Your task to perform on an android device: Do I have any events this weekend? Image 0: 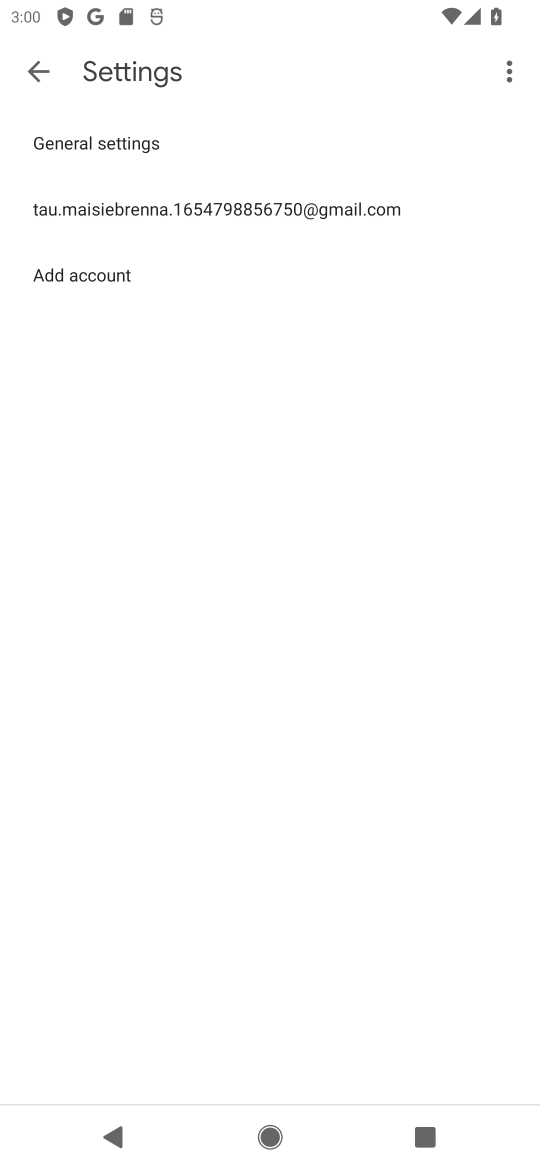
Step 0: press home button
Your task to perform on an android device: Do I have any events this weekend? Image 1: 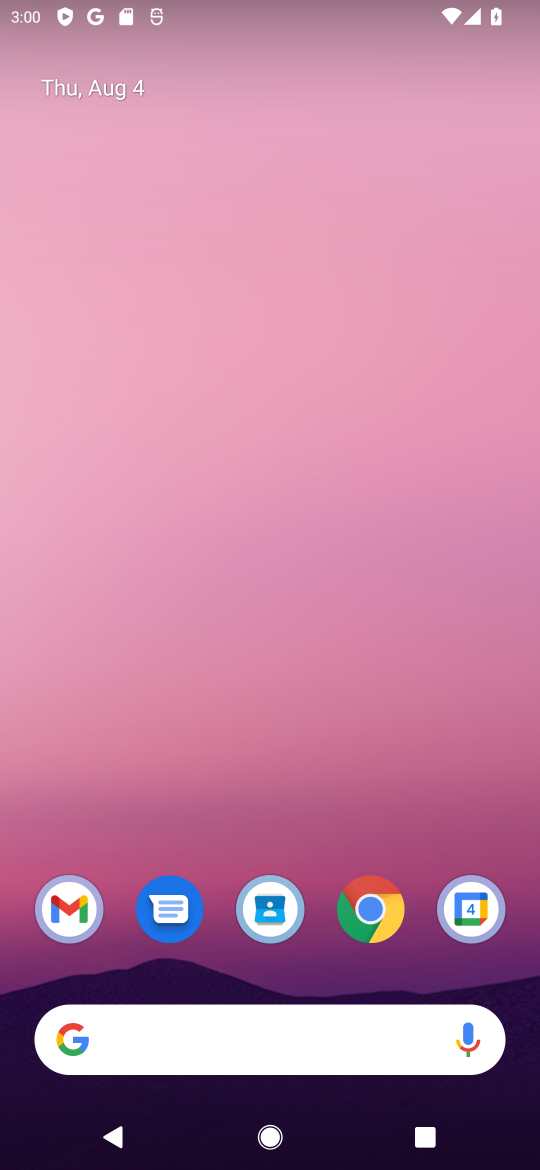
Step 1: drag from (268, 1039) to (469, 185)
Your task to perform on an android device: Do I have any events this weekend? Image 2: 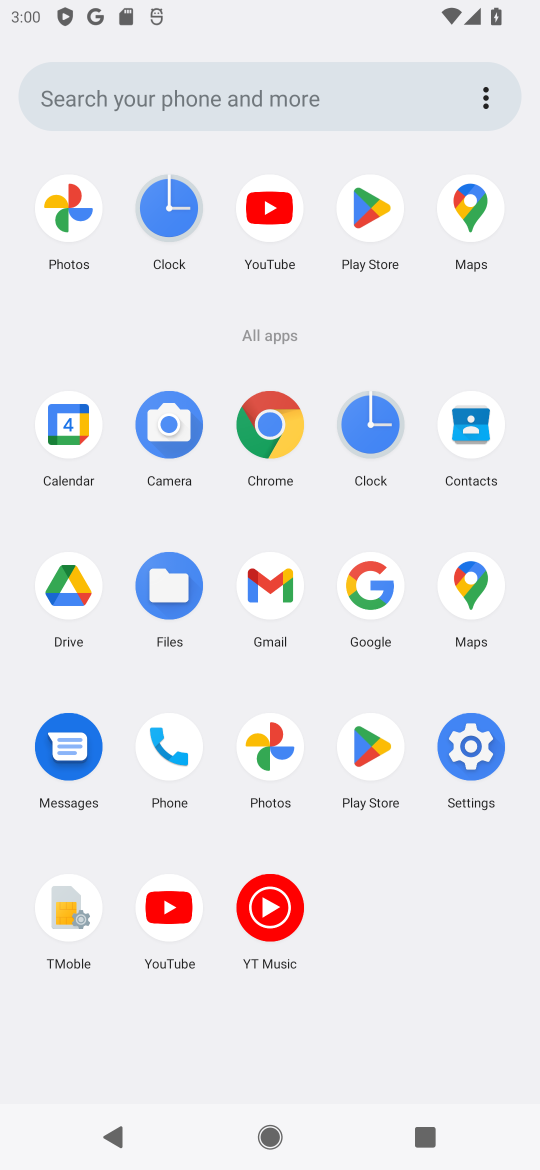
Step 2: click (65, 416)
Your task to perform on an android device: Do I have any events this weekend? Image 3: 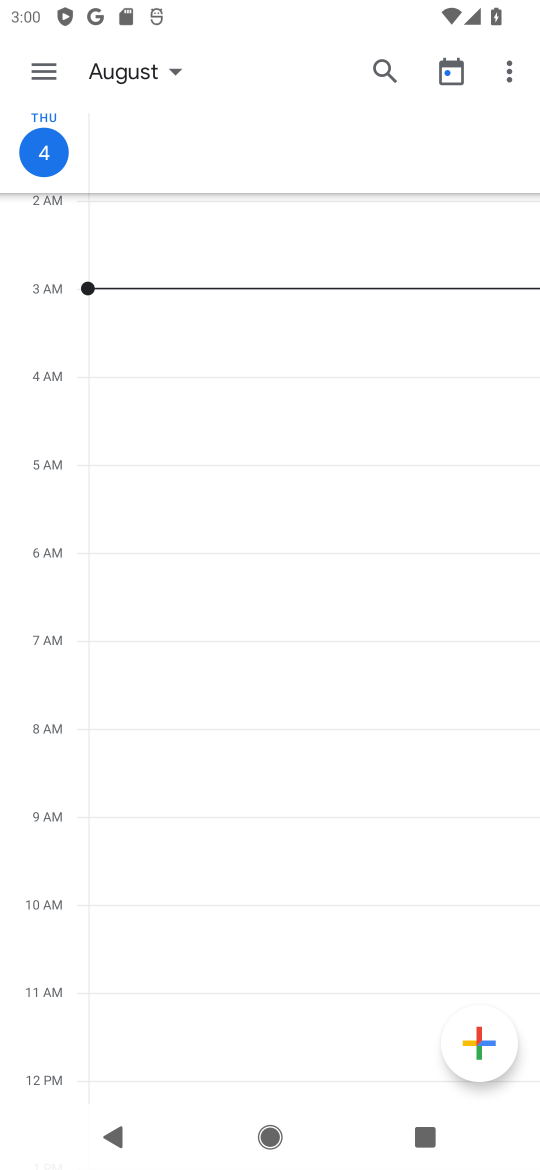
Step 3: click (133, 67)
Your task to perform on an android device: Do I have any events this weekend? Image 4: 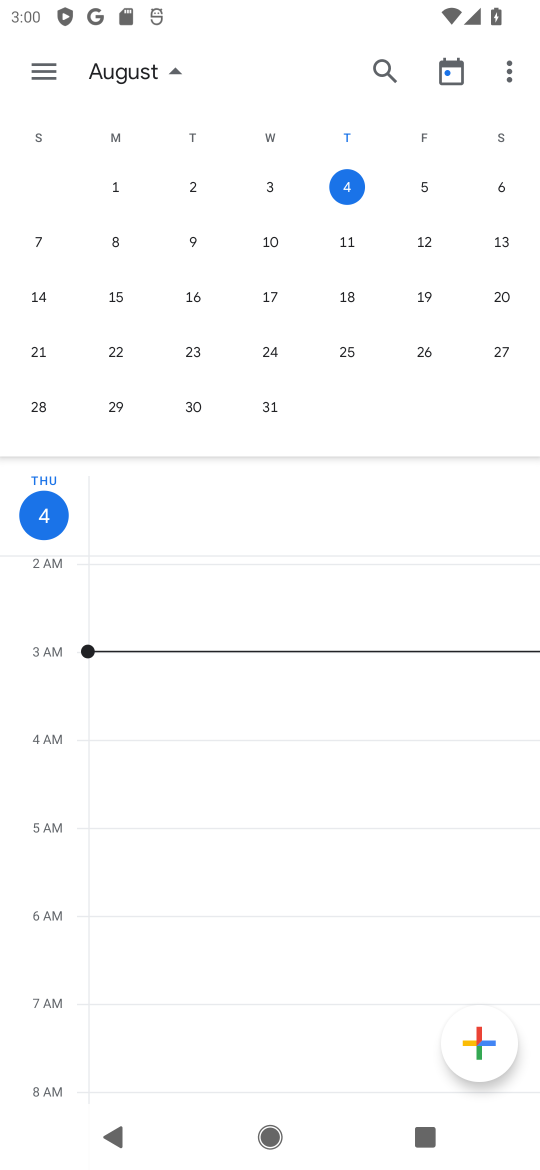
Step 4: click (501, 181)
Your task to perform on an android device: Do I have any events this weekend? Image 5: 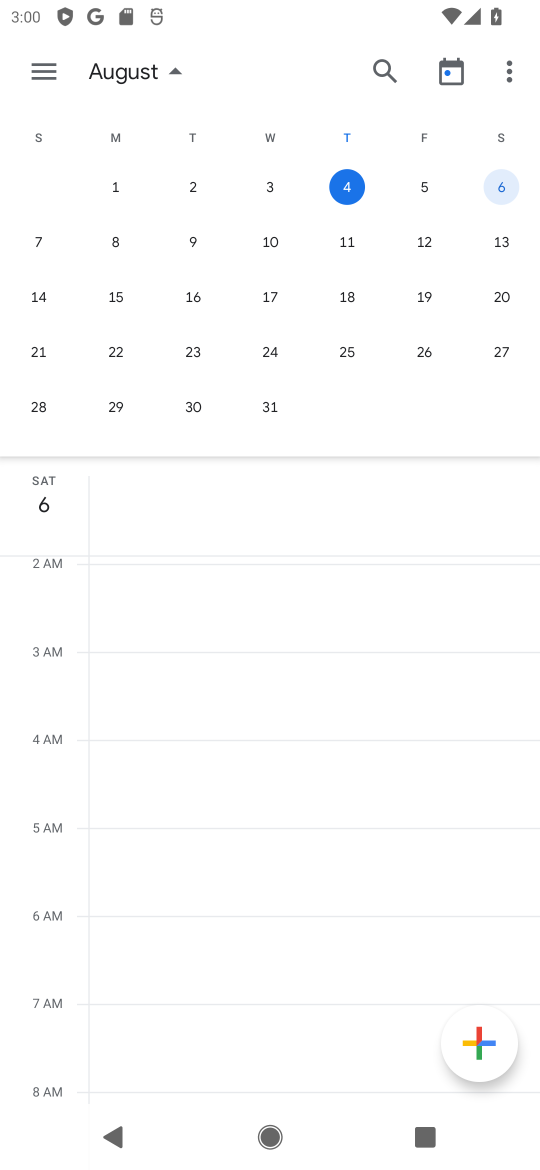
Step 5: click (41, 62)
Your task to perform on an android device: Do I have any events this weekend? Image 6: 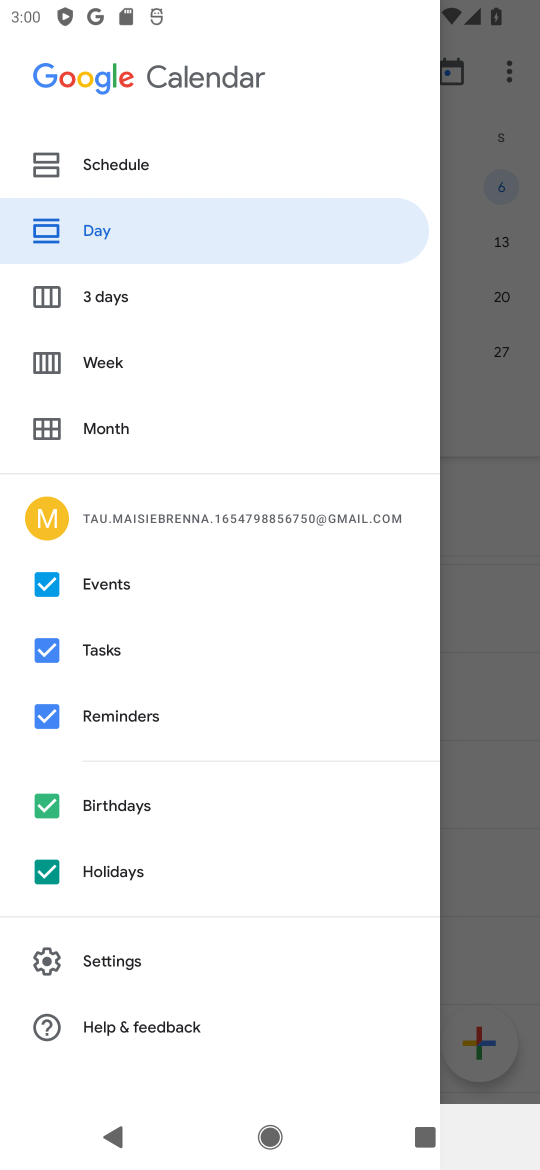
Step 6: click (117, 158)
Your task to perform on an android device: Do I have any events this weekend? Image 7: 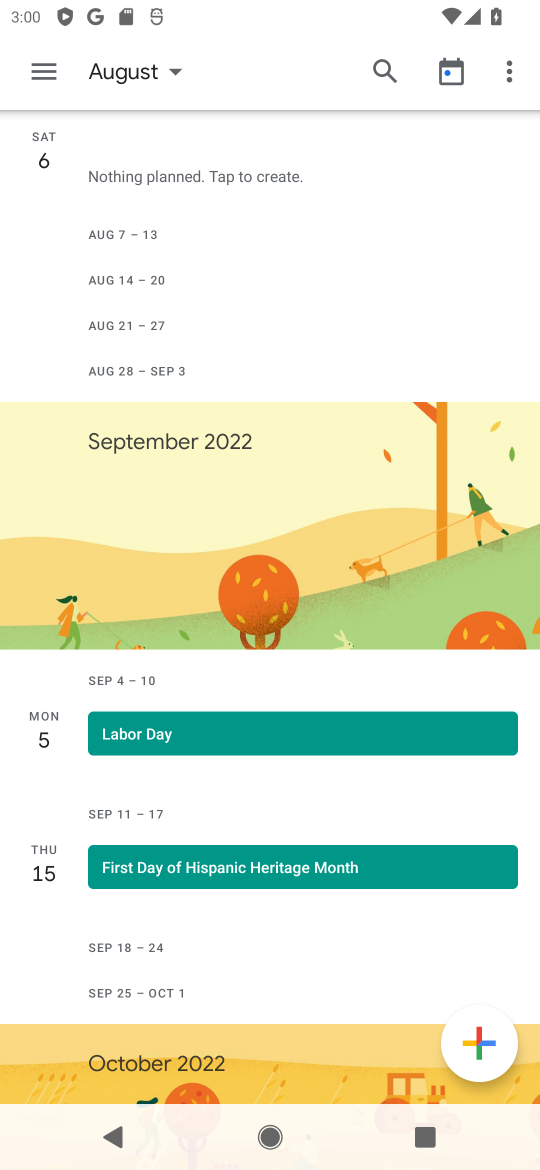
Step 7: task complete